Your task to perform on an android device: add a contact Image 0: 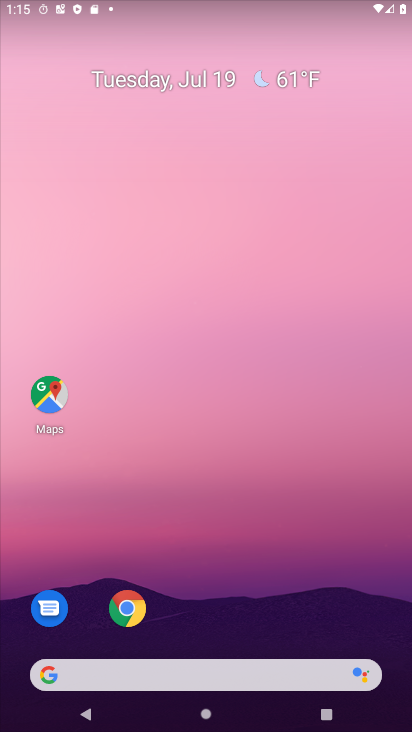
Step 0: drag from (219, 588) to (201, 0)
Your task to perform on an android device: add a contact Image 1: 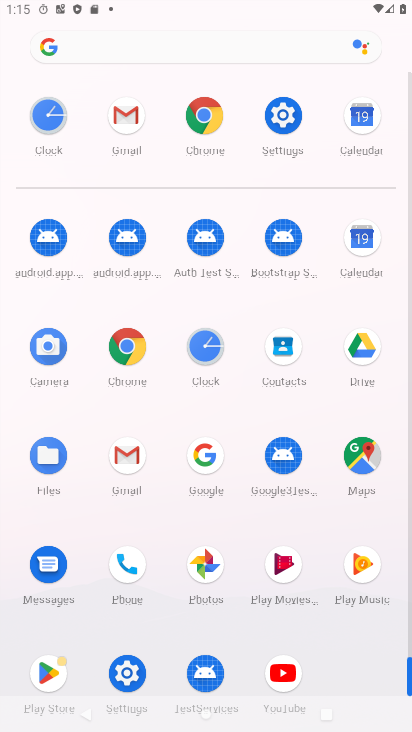
Step 1: click (133, 571)
Your task to perform on an android device: add a contact Image 2: 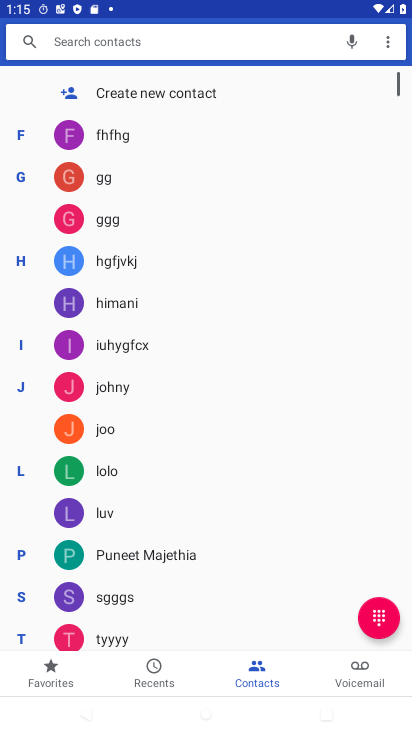
Step 2: click (109, 98)
Your task to perform on an android device: add a contact Image 3: 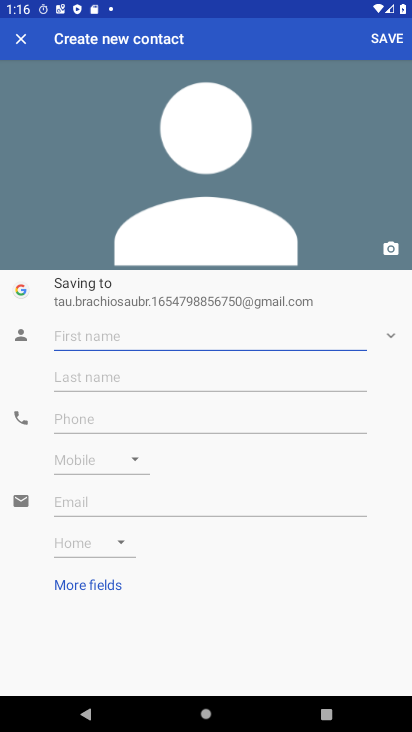
Step 3: type "rtyyy"
Your task to perform on an android device: add a contact Image 4: 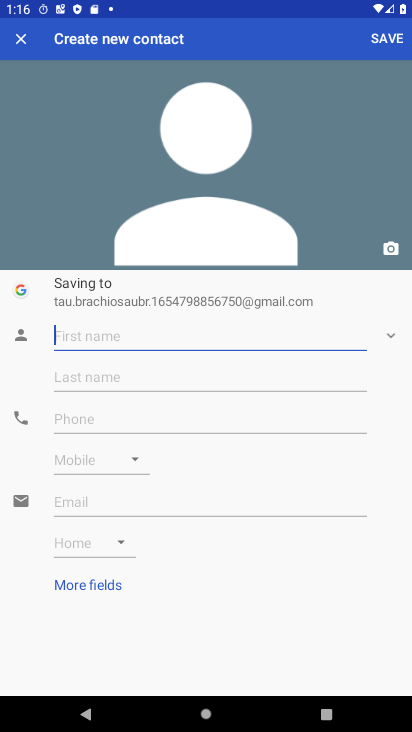
Step 4: click (106, 421)
Your task to perform on an android device: add a contact Image 5: 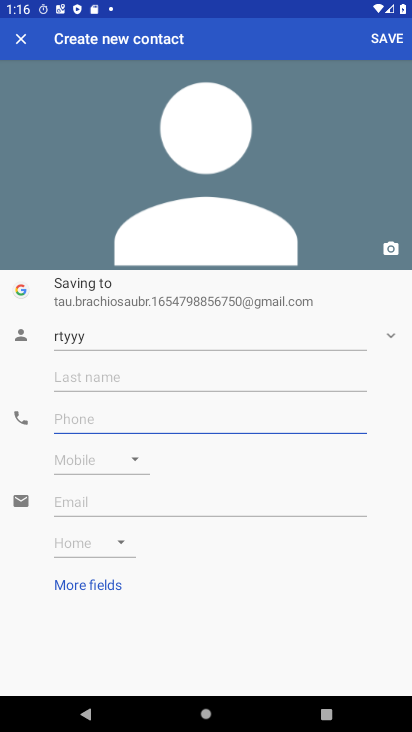
Step 5: type "654565545"
Your task to perform on an android device: add a contact Image 6: 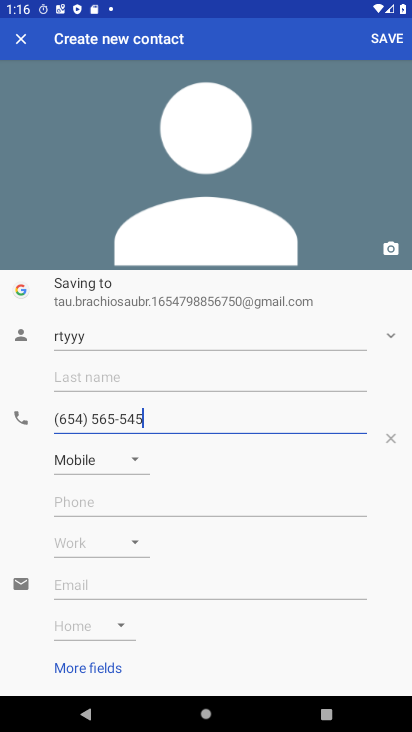
Step 6: click (392, 45)
Your task to perform on an android device: add a contact Image 7: 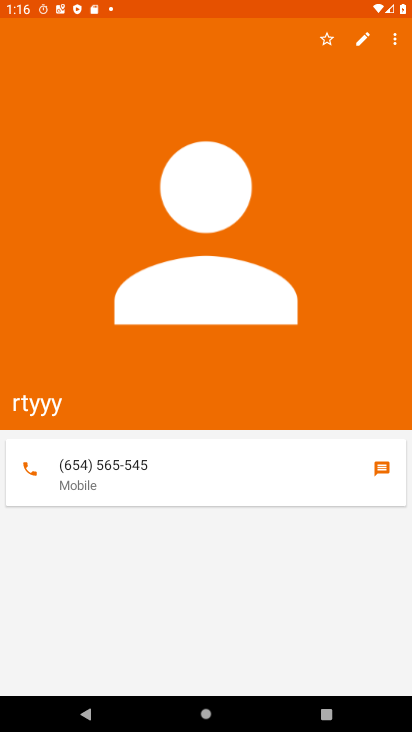
Step 7: task complete